Your task to perform on an android device: toggle notification dots Image 0: 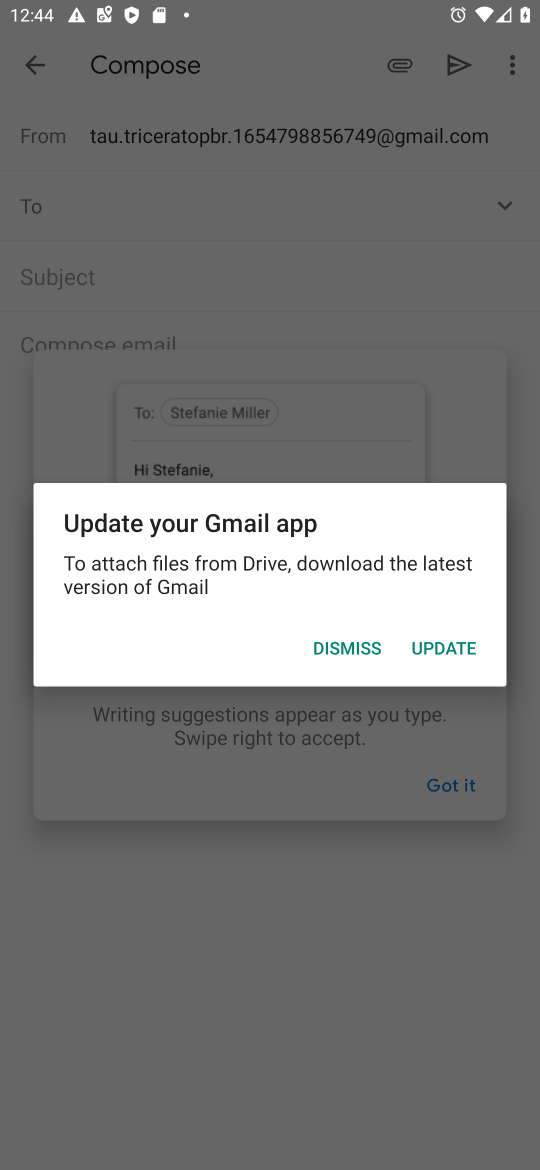
Step 0: press home button
Your task to perform on an android device: toggle notification dots Image 1: 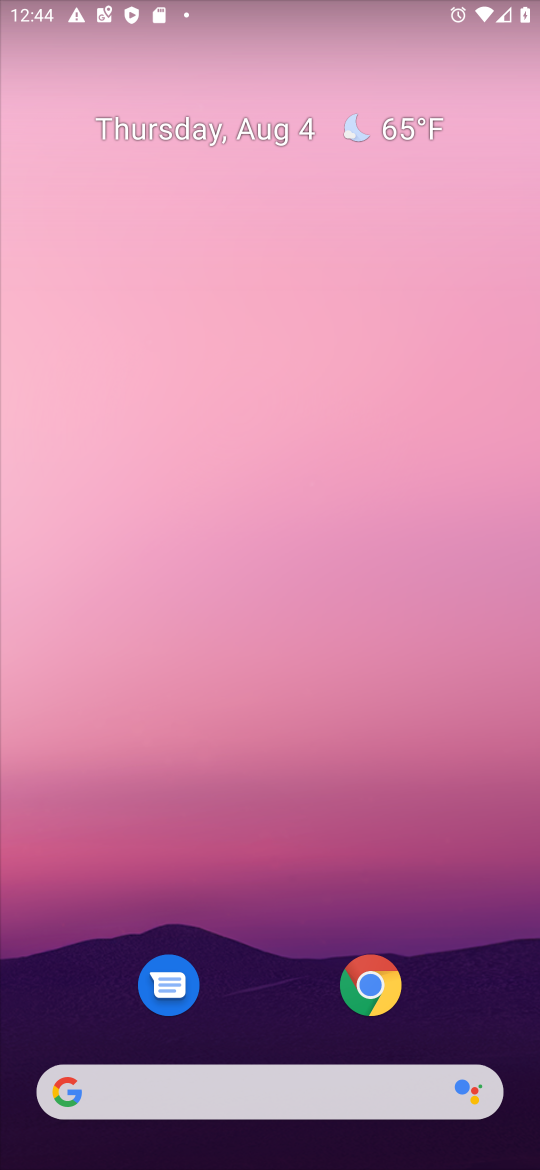
Step 1: drag from (255, 331) to (261, 58)
Your task to perform on an android device: toggle notification dots Image 2: 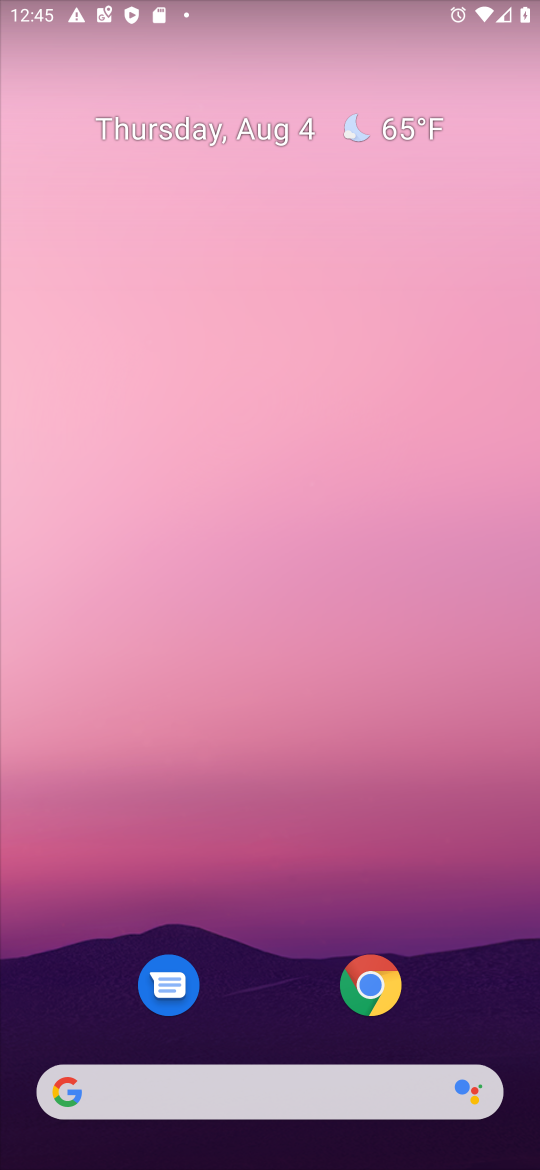
Step 2: drag from (274, 917) to (225, 243)
Your task to perform on an android device: toggle notification dots Image 3: 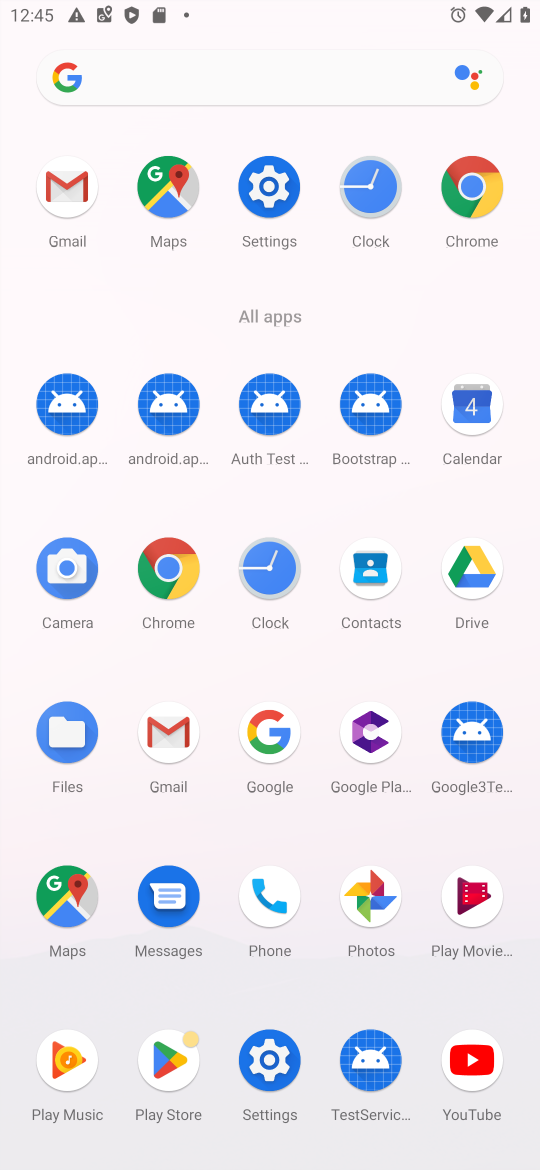
Step 3: click (266, 180)
Your task to perform on an android device: toggle notification dots Image 4: 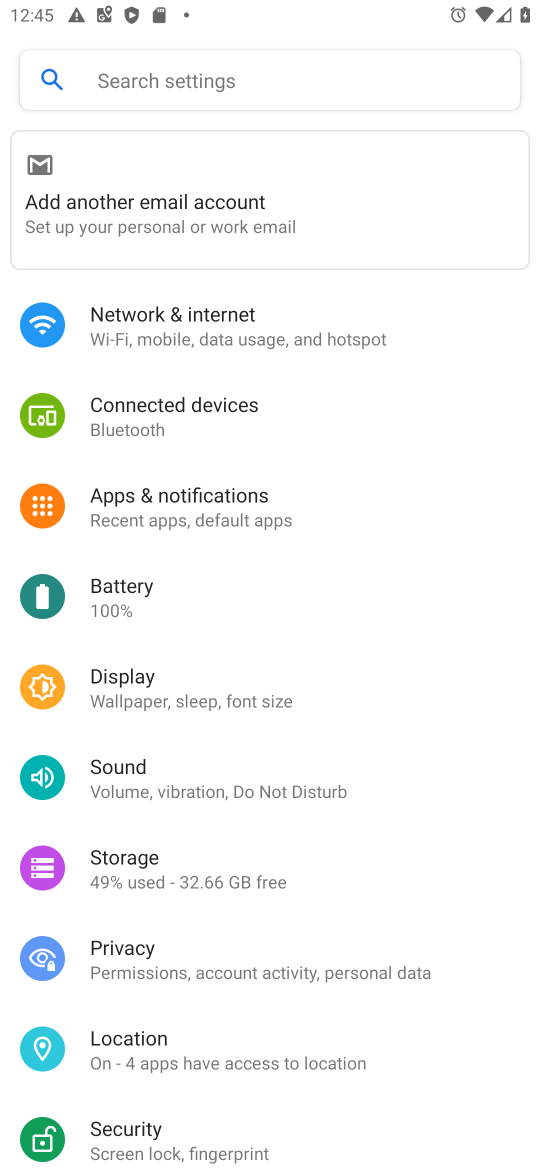
Step 4: click (189, 490)
Your task to perform on an android device: toggle notification dots Image 5: 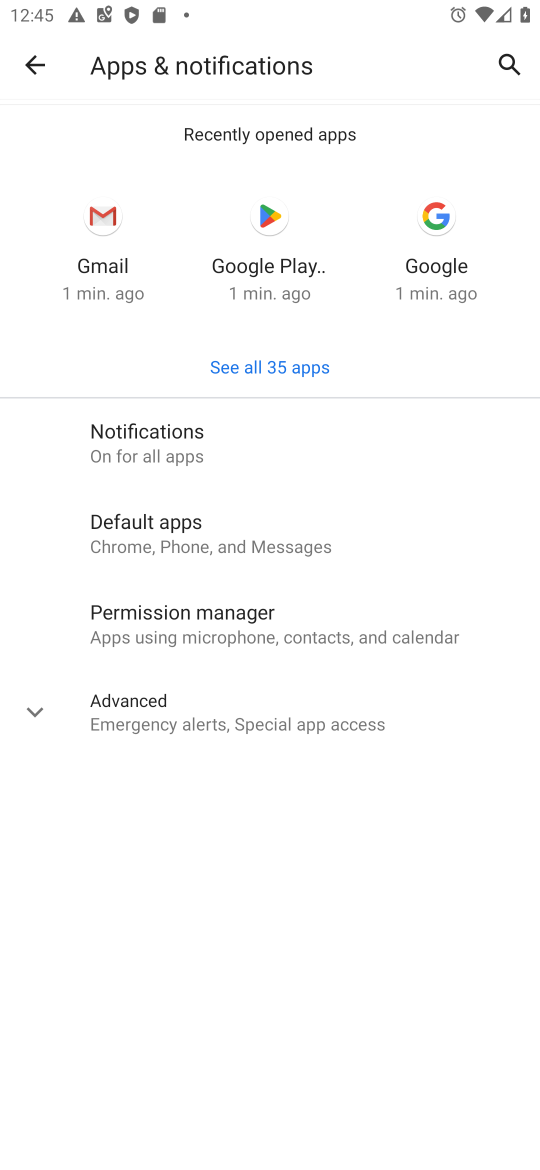
Step 5: click (133, 429)
Your task to perform on an android device: toggle notification dots Image 6: 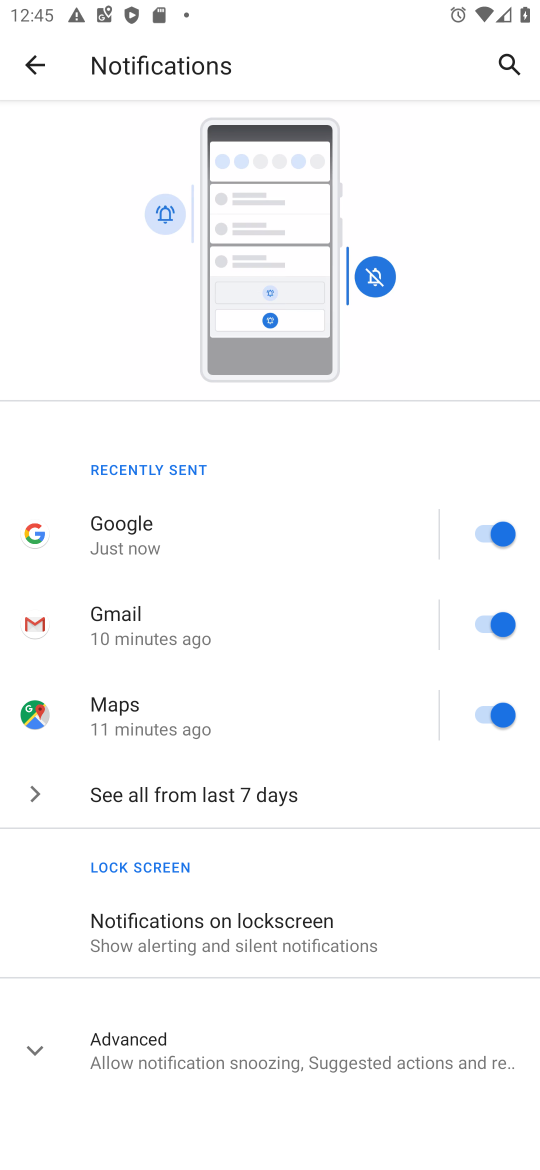
Step 6: click (37, 1043)
Your task to perform on an android device: toggle notification dots Image 7: 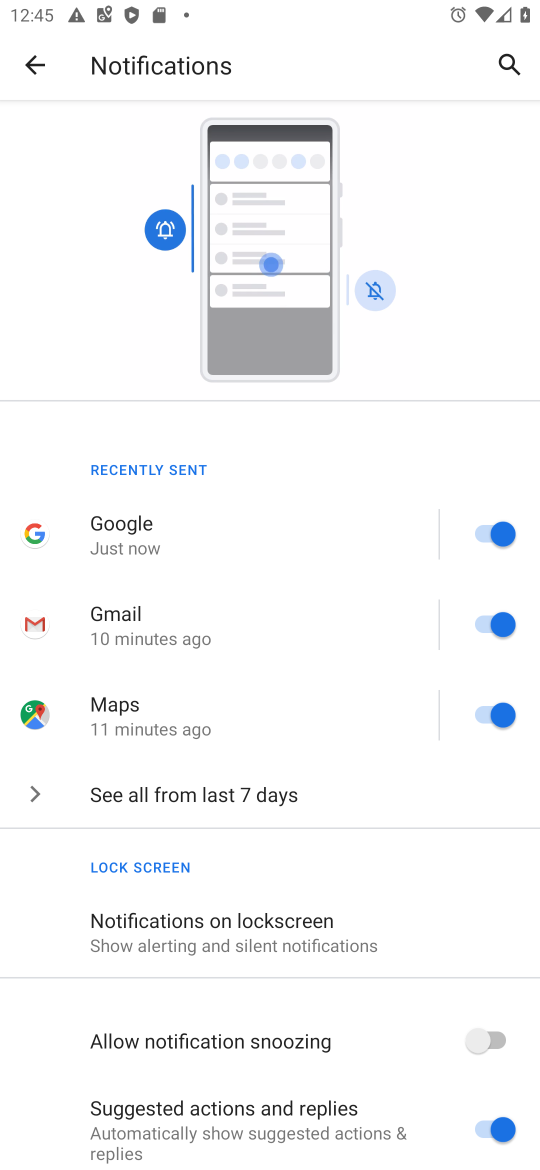
Step 7: drag from (349, 967) to (349, 600)
Your task to perform on an android device: toggle notification dots Image 8: 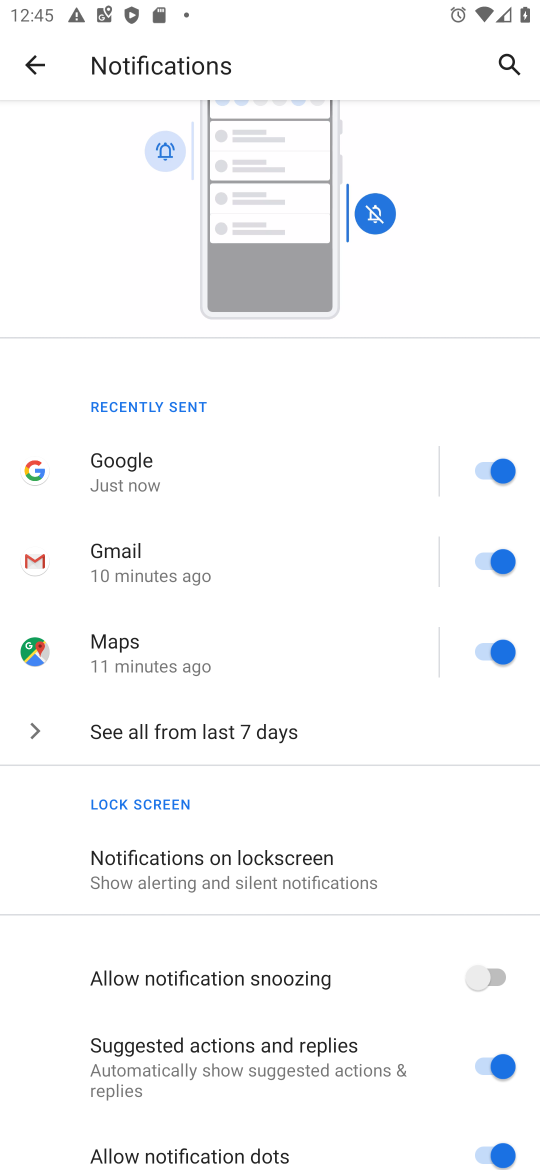
Step 8: click (506, 1146)
Your task to perform on an android device: toggle notification dots Image 9: 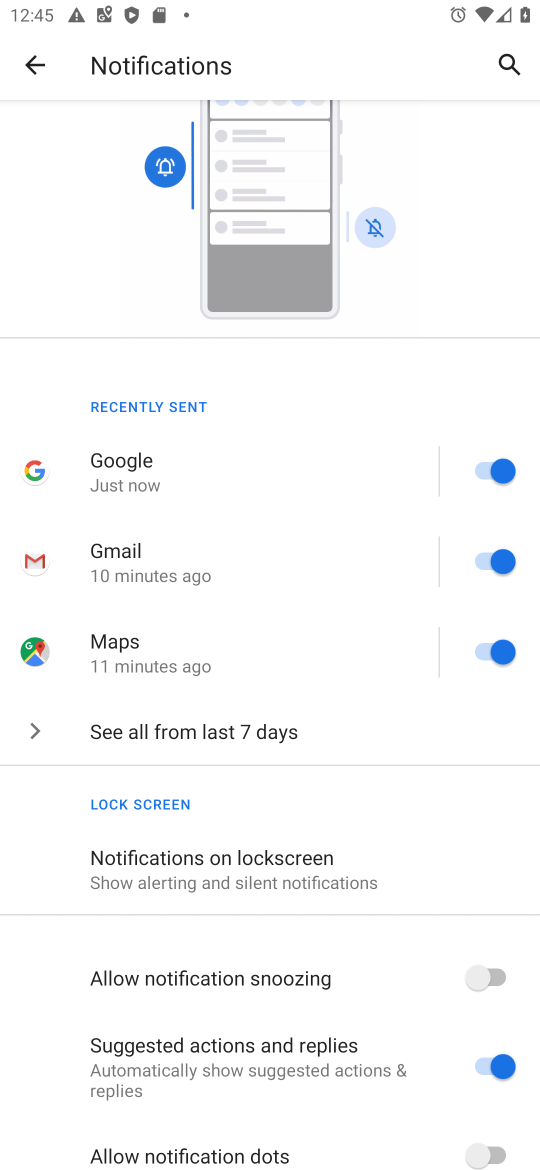
Step 9: task complete